Your task to perform on an android device: What's on my calendar tomorrow? Image 0: 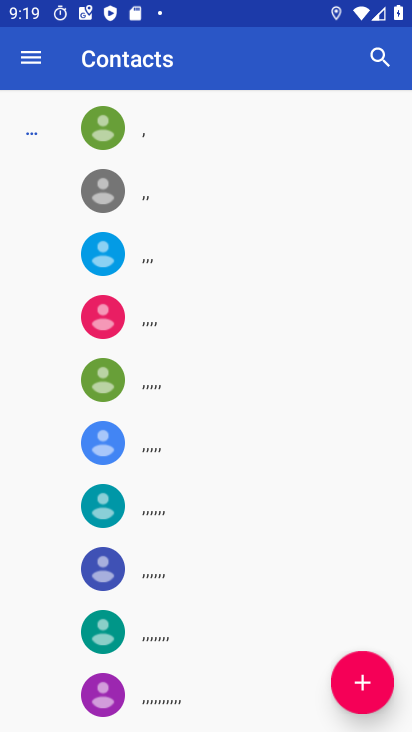
Step 0: press home button
Your task to perform on an android device: What's on my calendar tomorrow? Image 1: 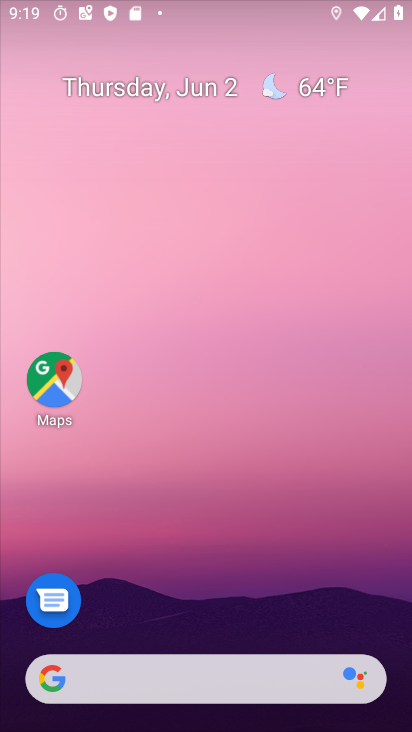
Step 1: drag from (190, 626) to (228, 87)
Your task to perform on an android device: What's on my calendar tomorrow? Image 2: 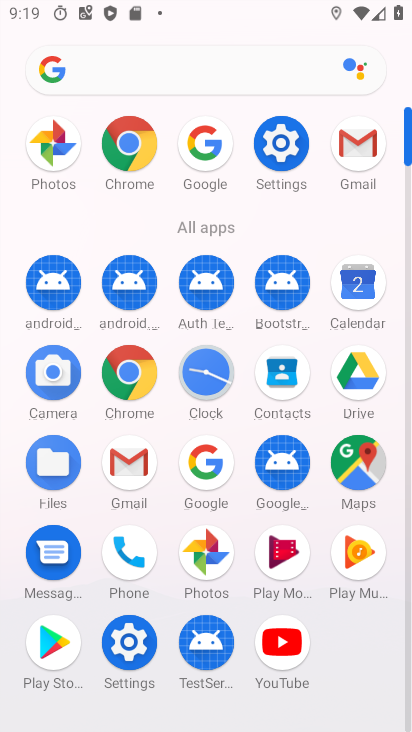
Step 2: click (361, 289)
Your task to perform on an android device: What's on my calendar tomorrow? Image 3: 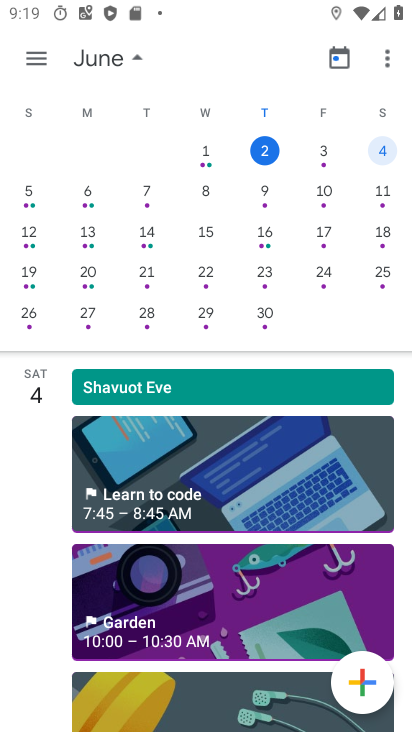
Step 3: click (327, 144)
Your task to perform on an android device: What's on my calendar tomorrow? Image 4: 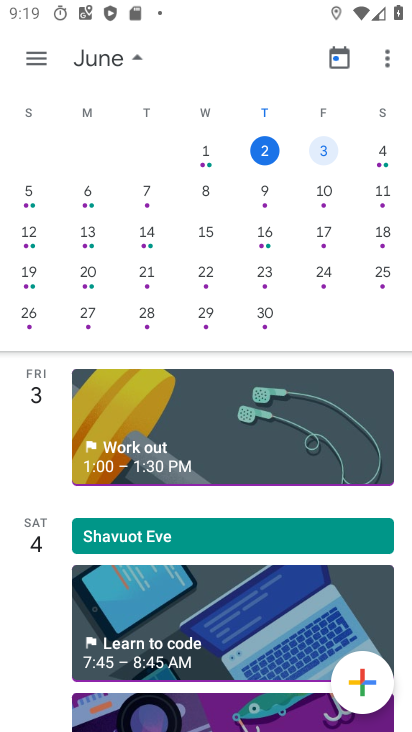
Step 4: task complete